Your task to perform on an android device: Open the stopwatch Image 0: 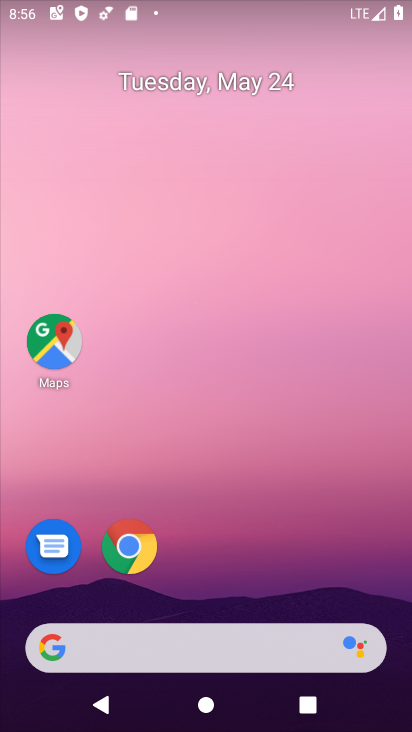
Step 0: drag from (201, 551) to (252, 17)
Your task to perform on an android device: Open the stopwatch Image 1: 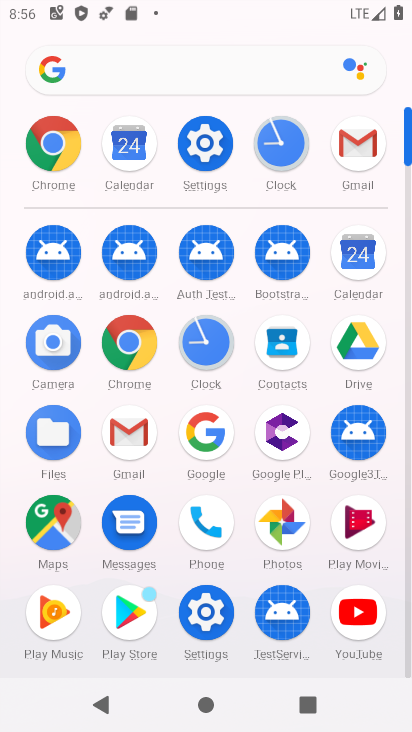
Step 1: click (276, 146)
Your task to perform on an android device: Open the stopwatch Image 2: 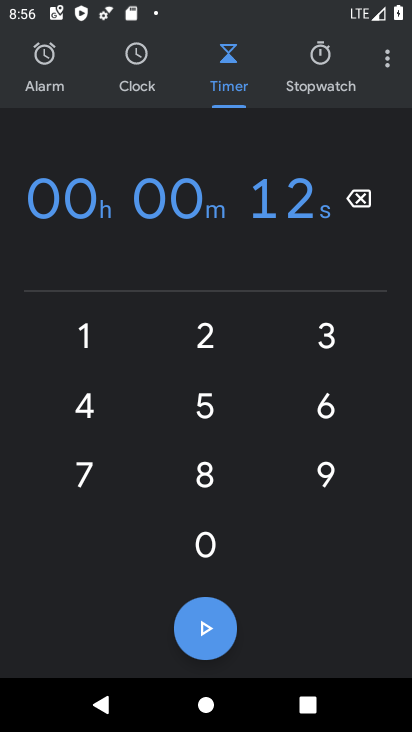
Step 2: click (312, 61)
Your task to perform on an android device: Open the stopwatch Image 3: 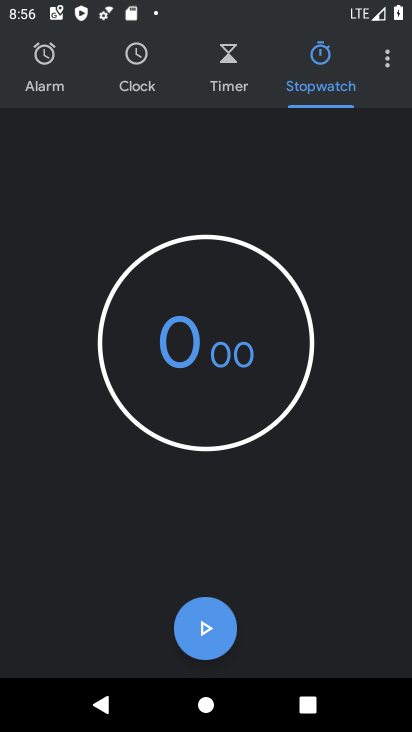
Step 3: task complete